Your task to perform on an android device: Open calendar and show me the fourth week of next month Image 0: 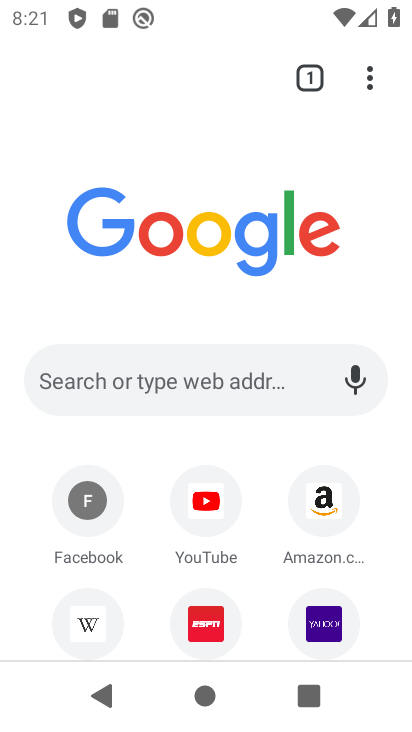
Step 0: press back button
Your task to perform on an android device: Open calendar and show me the fourth week of next month Image 1: 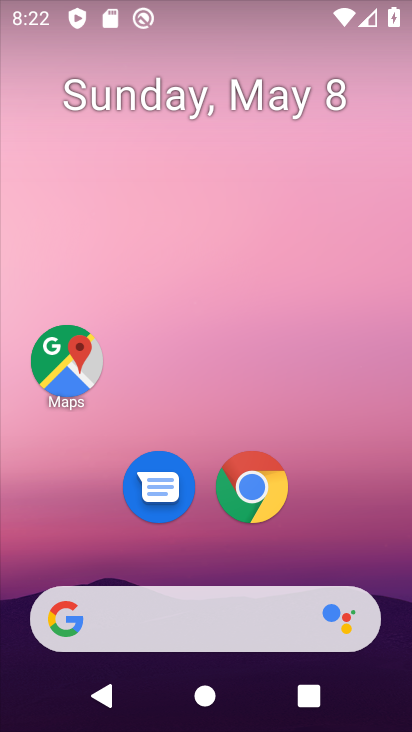
Step 1: drag from (209, 557) to (201, 148)
Your task to perform on an android device: Open calendar and show me the fourth week of next month Image 2: 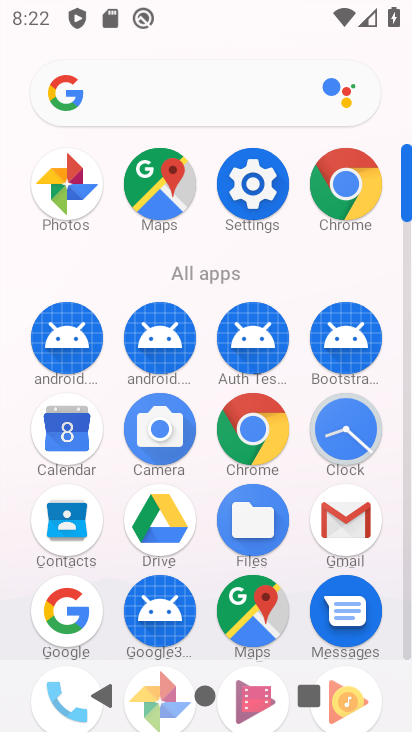
Step 2: click (90, 443)
Your task to perform on an android device: Open calendar and show me the fourth week of next month Image 3: 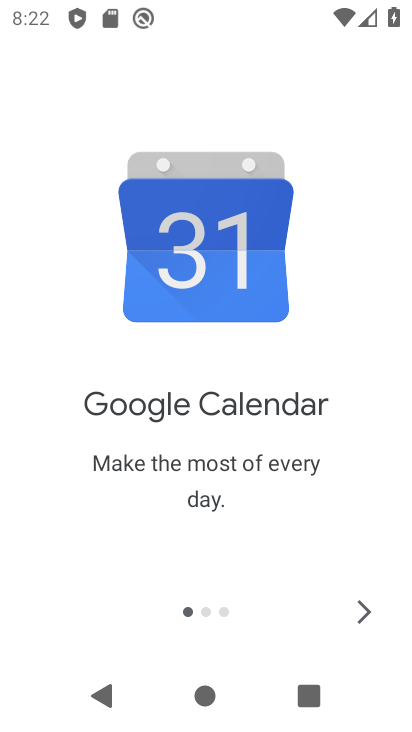
Step 3: click (355, 607)
Your task to perform on an android device: Open calendar and show me the fourth week of next month Image 4: 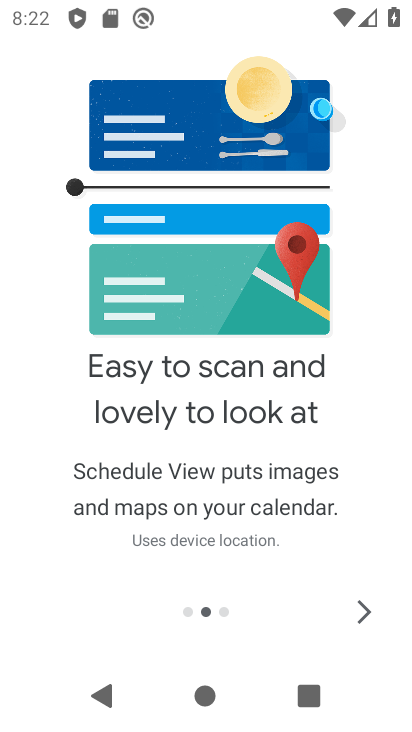
Step 4: click (355, 607)
Your task to perform on an android device: Open calendar and show me the fourth week of next month Image 5: 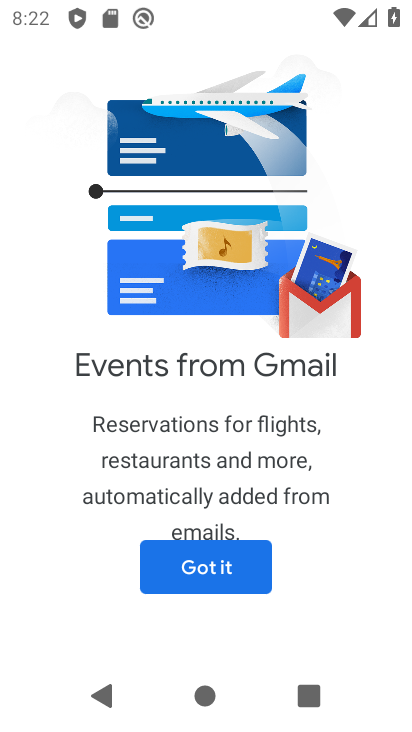
Step 5: click (183, 552)
Your task to perform on an android device: Open calendar and show me the fourth week of next month Image 6: 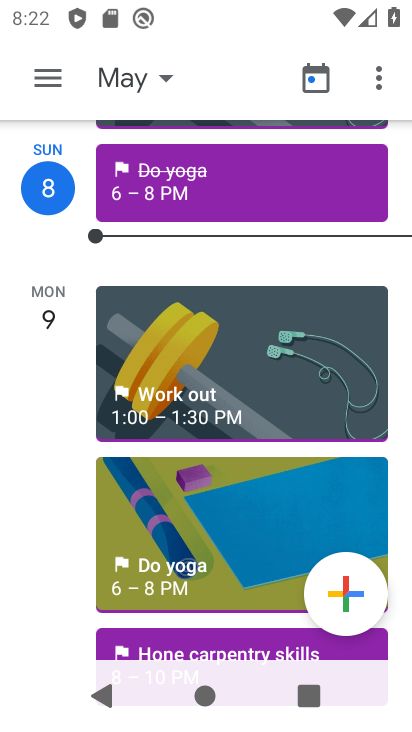
Step 6: click (149, 77)
Your task to perform on an android device: Open calendar and show me the fourth week of next month Image 7: 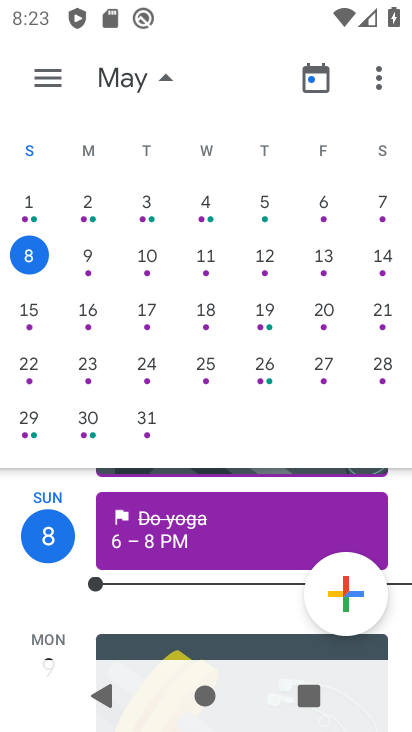
Step 7: drag from (348, 297) to (31, 238)
Your task to perform on an android device: Open calendar and show me the fourth week of next month Image 8: 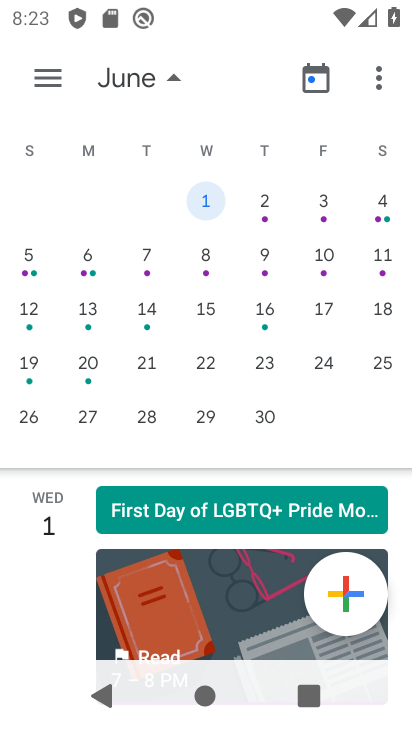
Step 8: click (34, 363)
Your task to perform on an android device: Open calendar and show me the fourth week of next month Image 9: 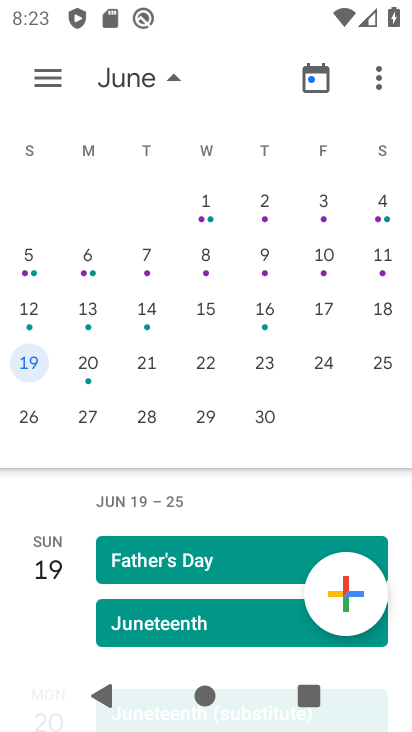
Step 9: task complete